Your task to perform on an android device: Turn off the flashlight Image 0: 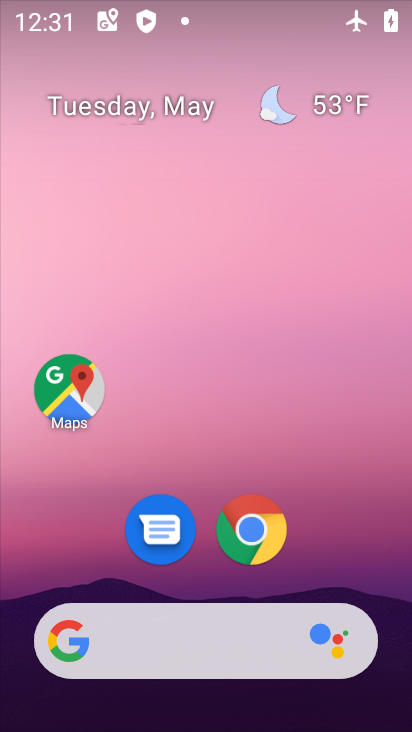
Step 0: drag from (201, 712) to (223, 233)
Your task to perform on an android device: Turn off the flashlight Image 1: 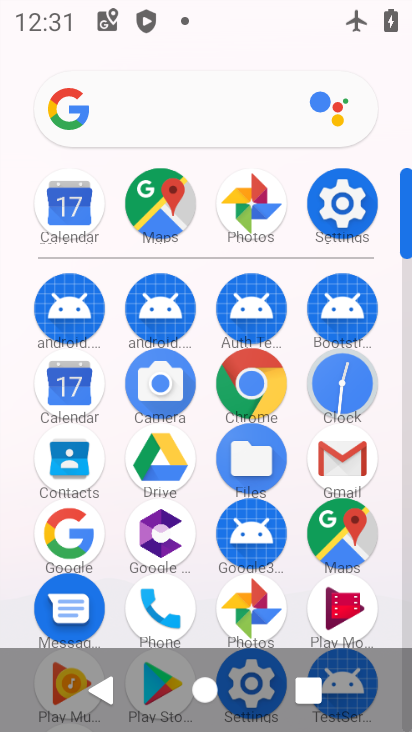
Step 1: click (349, 199)
Your task to perform on an android device: Turn off the flashlight Image 2: 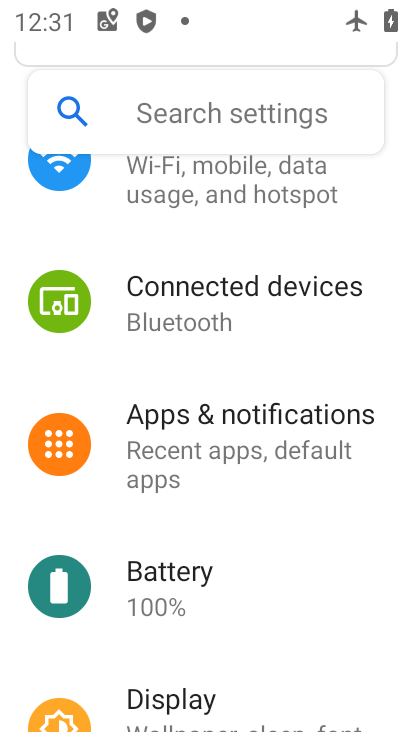
Step 2: task complete